Your task to perform on an android device: add a contact in the contacts app Image 0: 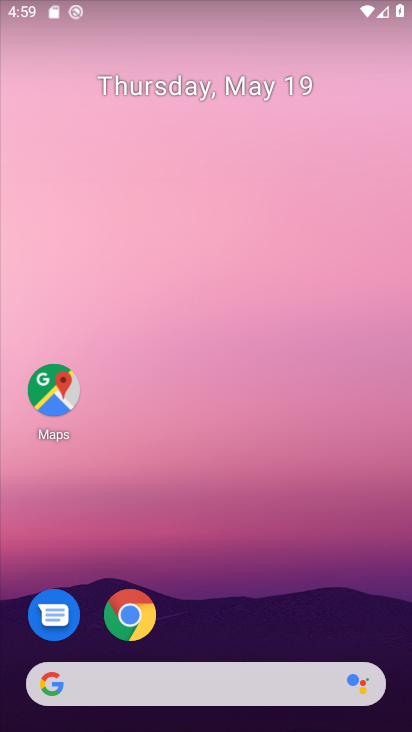
Step 0: drag from (246, 600) to (230, 13)
Your task to perform on an android device: add a contact in the contacts app Image 1: 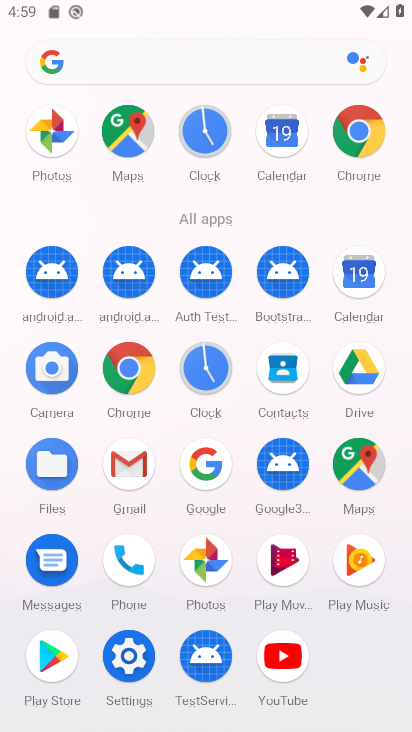
Step 1: click (300, 377)
Your task to perform on an android device: add a contact in the contacts app Image 2: 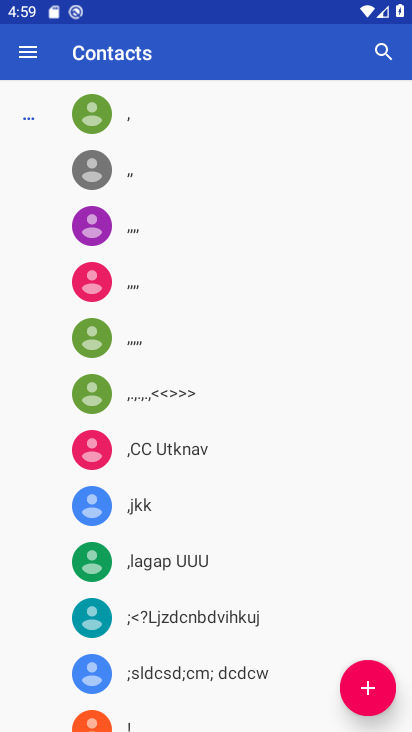
Step 2: click (380, 686)
Your task to perform on an android device: add a contact in the contacts app Image 3: 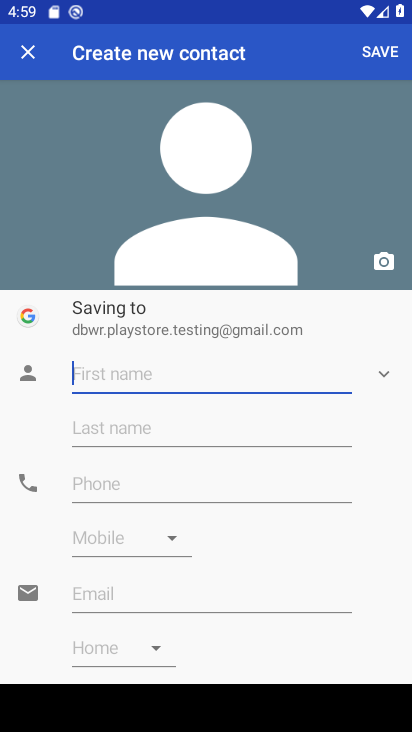
Step 3: type "hgdfgcjhj"
Your task to perform on an android device: add a contact in the contacts app Image 4: 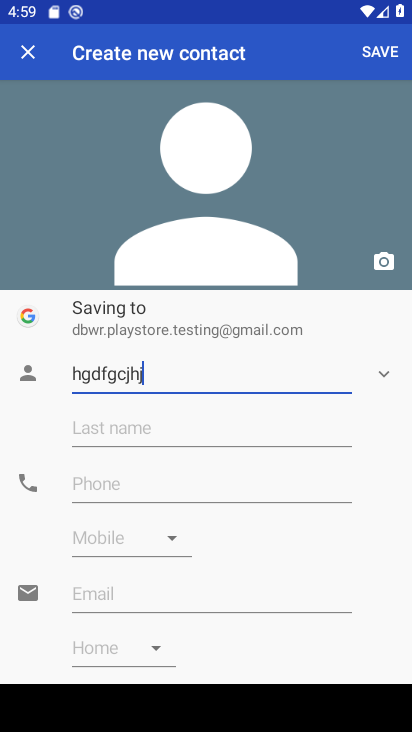
Step 4: click (178, 482)
Your task to perform on an android device: add a contact in the contacts app Image 5: 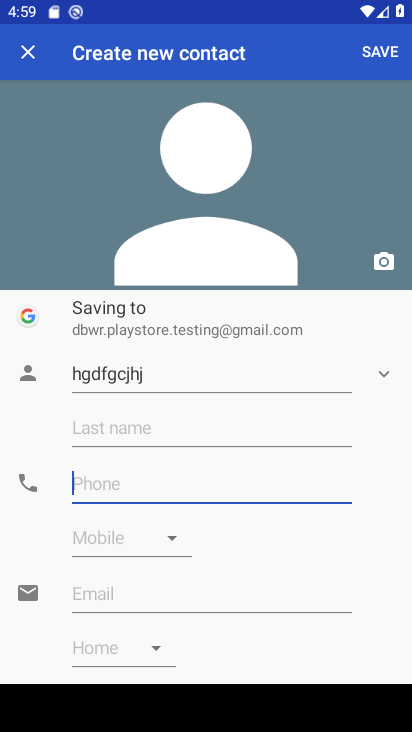
Step 5: type "9897767878"
Your task to perform on an android device: add a contact in the contacts app Image 6: 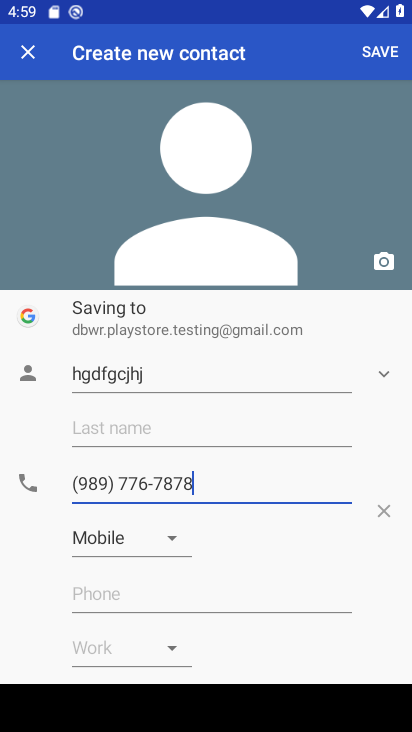
Step 6: click (390, 50)
Your task to perform on an android device: add a contact in the contacts app Image 7: 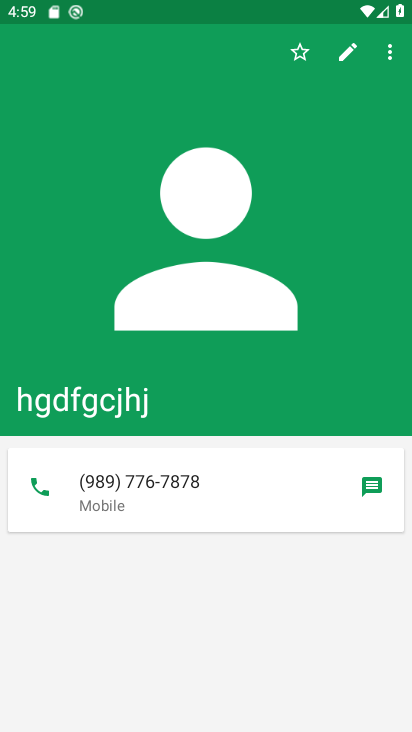
Step 7: task complete